Your task to perform on an android device: read, delete, or share a saved page in the chrome app Image 0: 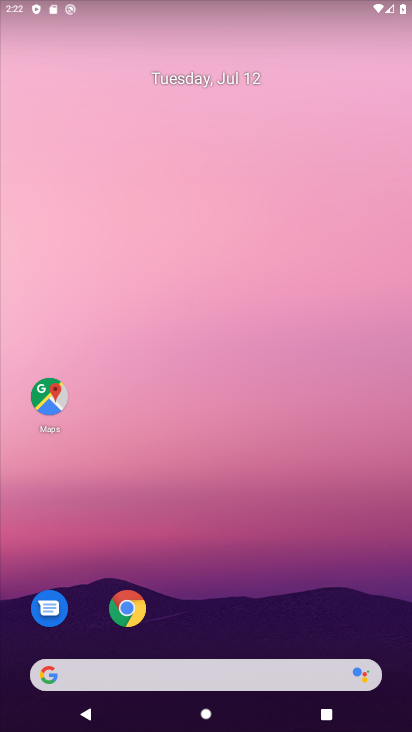
Step 0: click (121, 606)
Your task to perform on an android device: read, delete, or share a saved page in the chrome app Image 1: 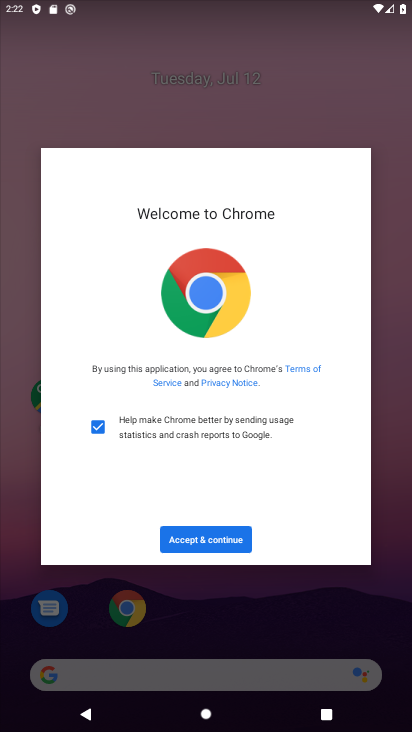
Step 1: click (212, 540)
Your task to perform on an android device: read, delete, or share a saved page in the chrome app Image 2: 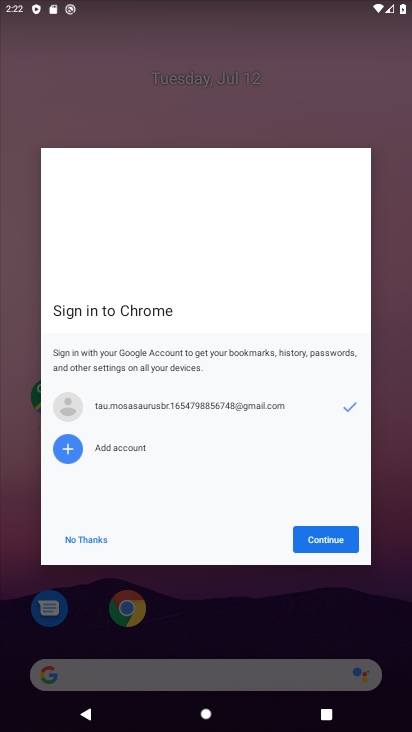
Step 2: click (305, 541)
Your task to perform on an android device: read, delete, or share a saved page in the chrome app Image 3: 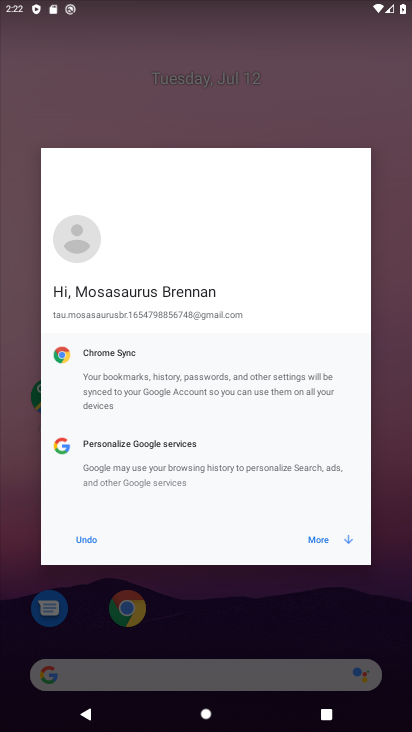
Step 3: click (320, 538)
Your task to perform on an android device: read, delete, or share a saved page in the chrome app Image 4: 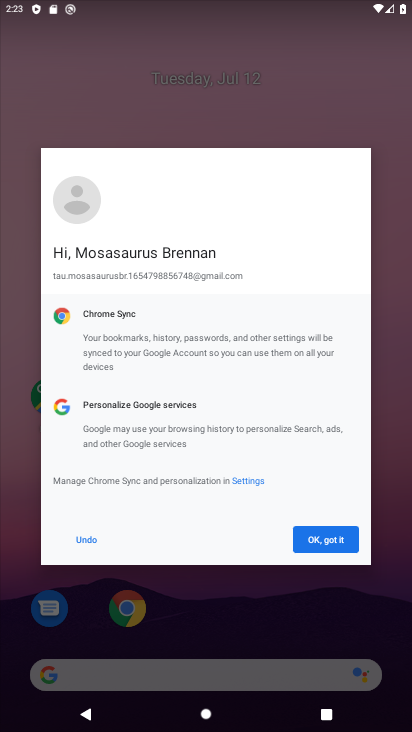
Step 4: click (326, 541)
Your task to perform on an android device: read, delete, or share a saved page in the chrome app Image 5: 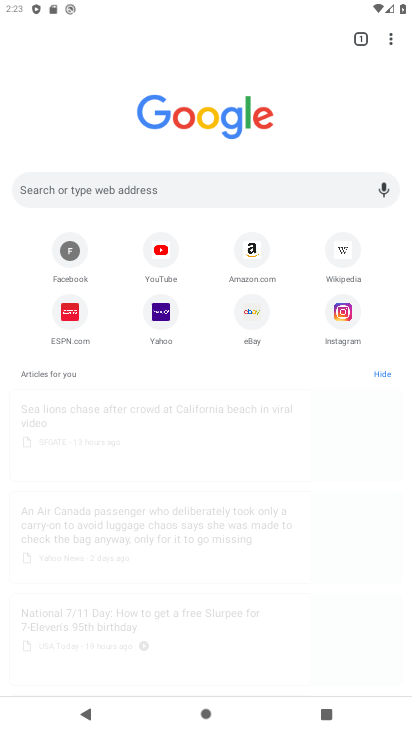
Step 5: click (388, 43)
Your task to perform on an android device: read, delete, or share a saved page in the chrome app Image 6: 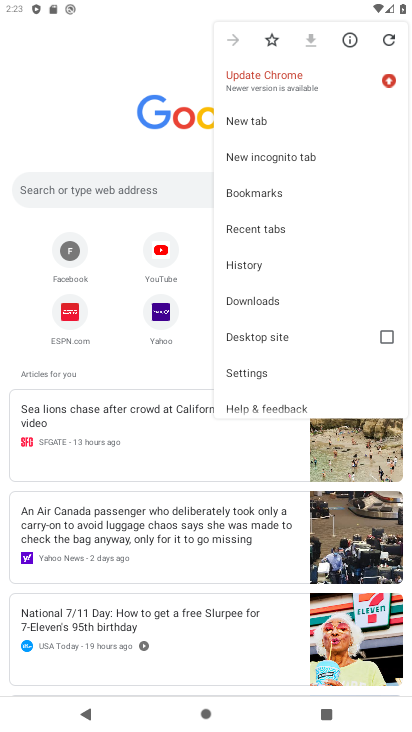
Step 6: click (270, 306)
Your task to perform on an android device: read, delete, or share a saved page in the chrome app Image 7: 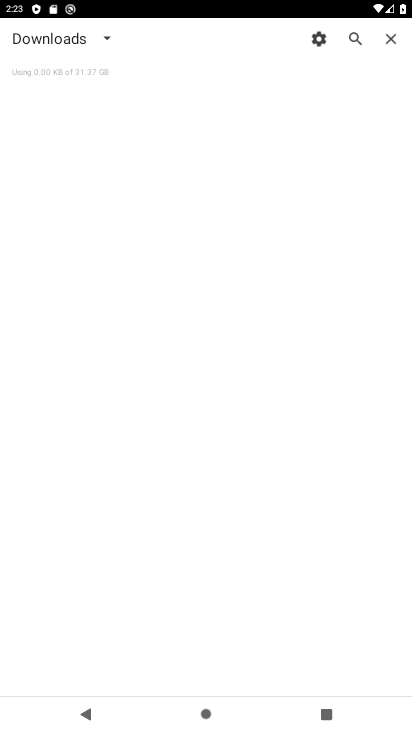
Step 7: click (99, 39)
Your task to perform on an android device: read, delete, or share a saved page in the chrome app Image 8: 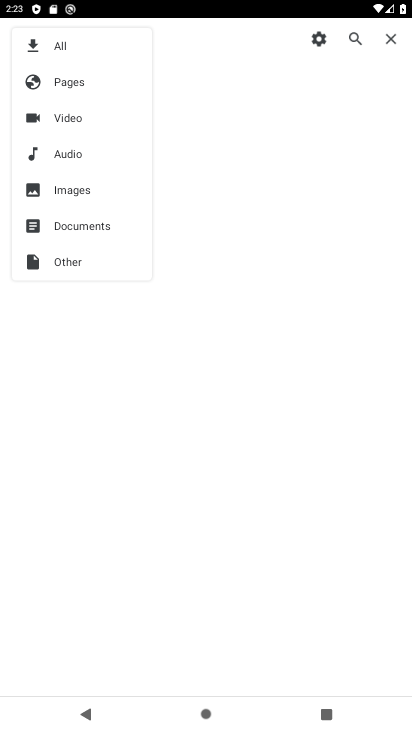
Step 8: click (85, 81)
Your task to perform on an android device: read, delete, or share a saved page in the chrome app Image 9: 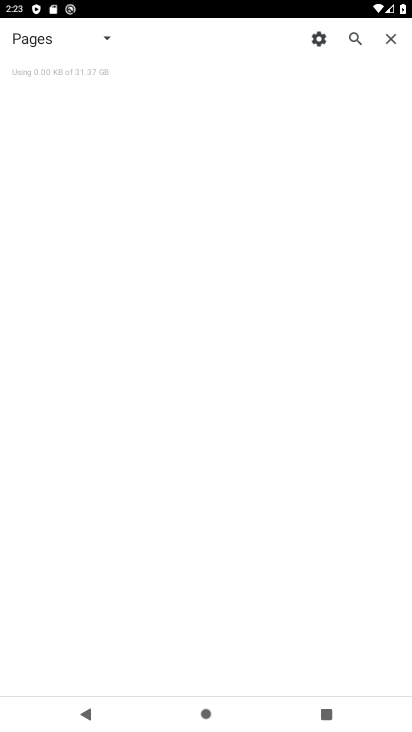
Step 9: task complete